Your task to perform on an android device: create a new album in the google photos Image 0: 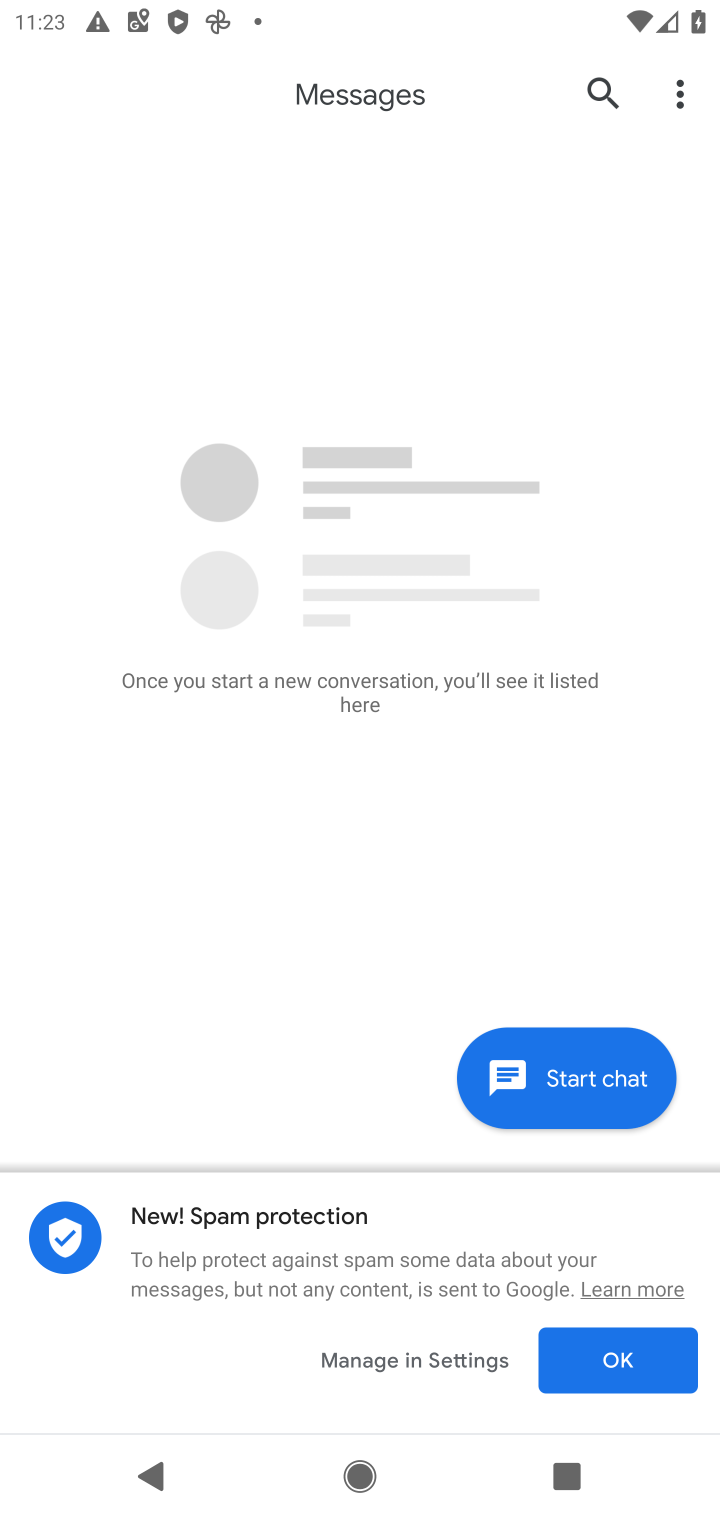
Step 0: press home button
Your task to perform on an android device: create a new album in the google photos Image 1: 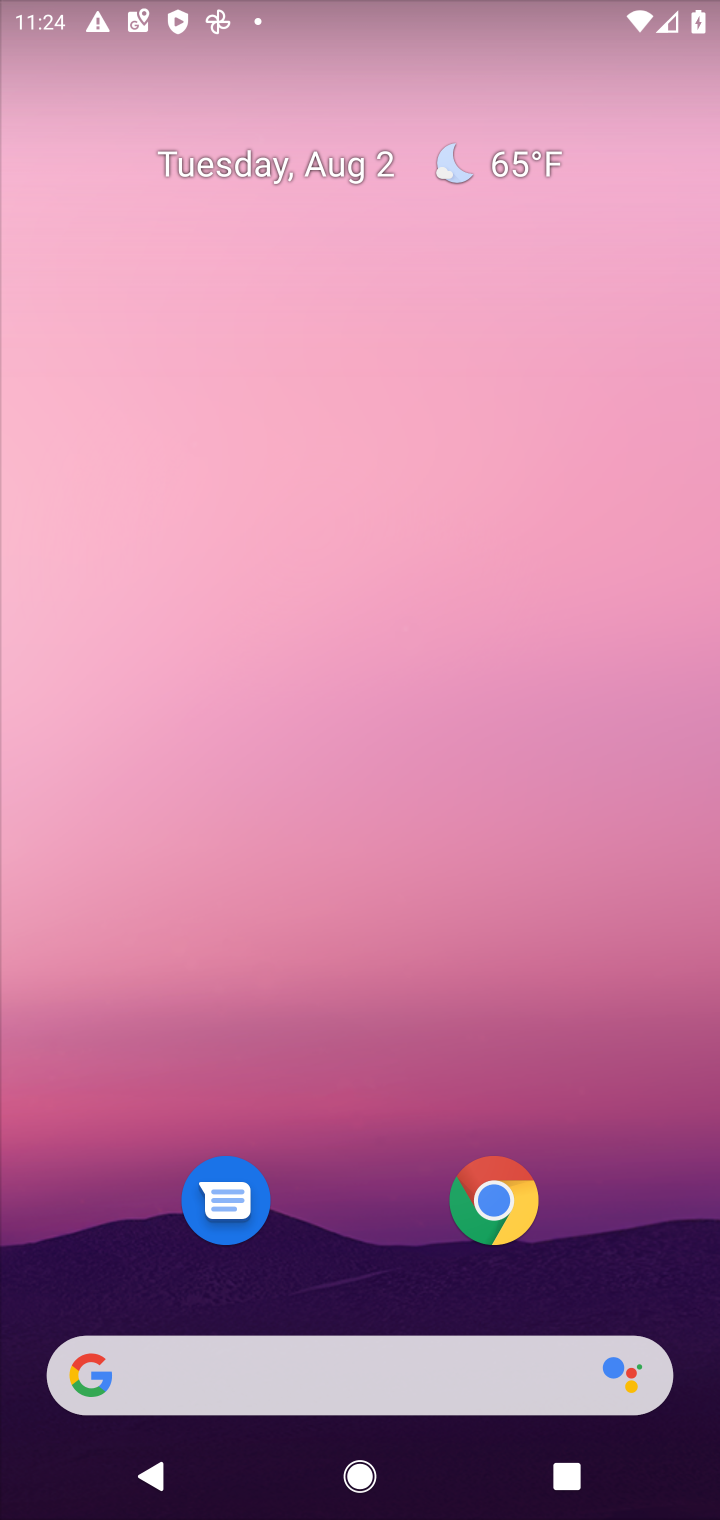
Step 1: drag from (669, 1281) to (624, 234)
Your task to perform on an android device: create a new album in the google photos Image 2: 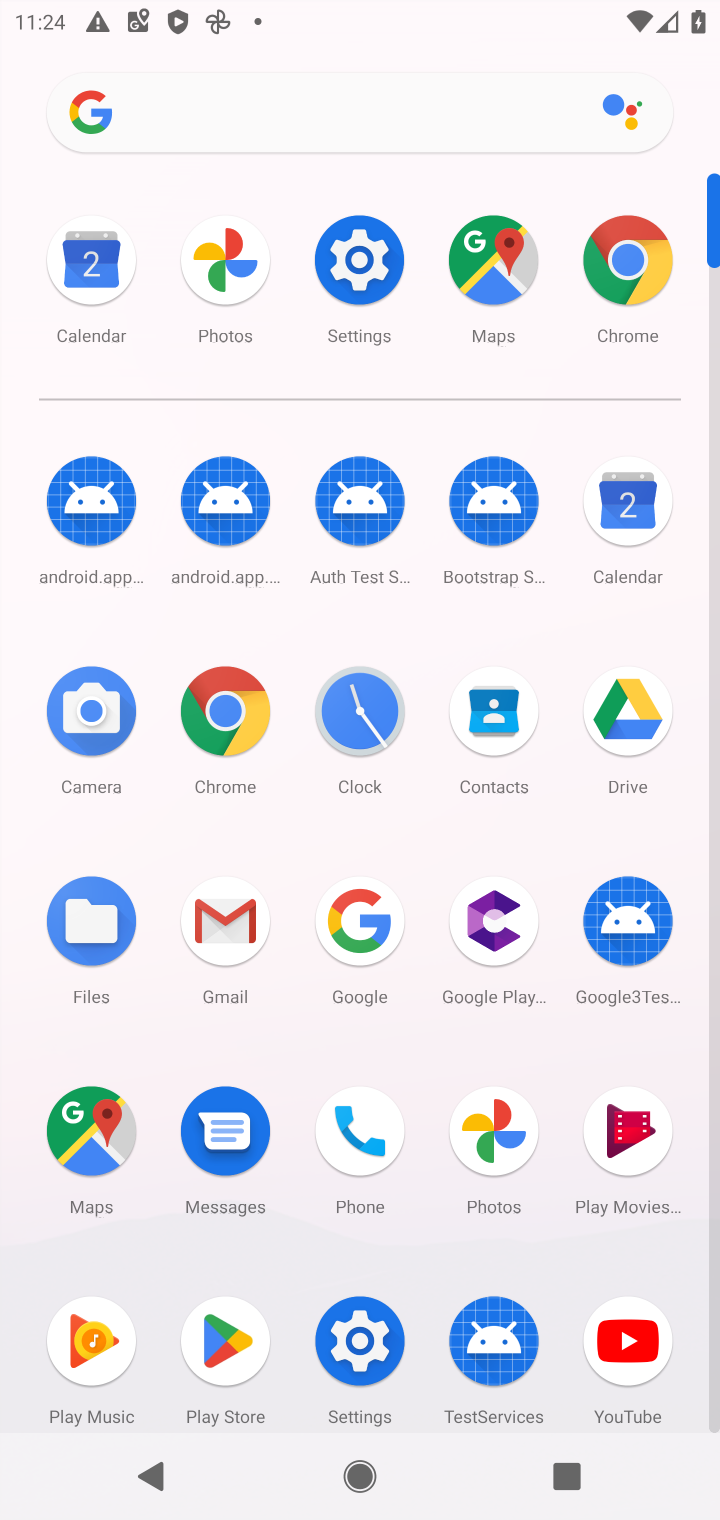
Step 2: click (503, 1138)
Your task to perform on an android device: create a new album in the google photos Image 3: 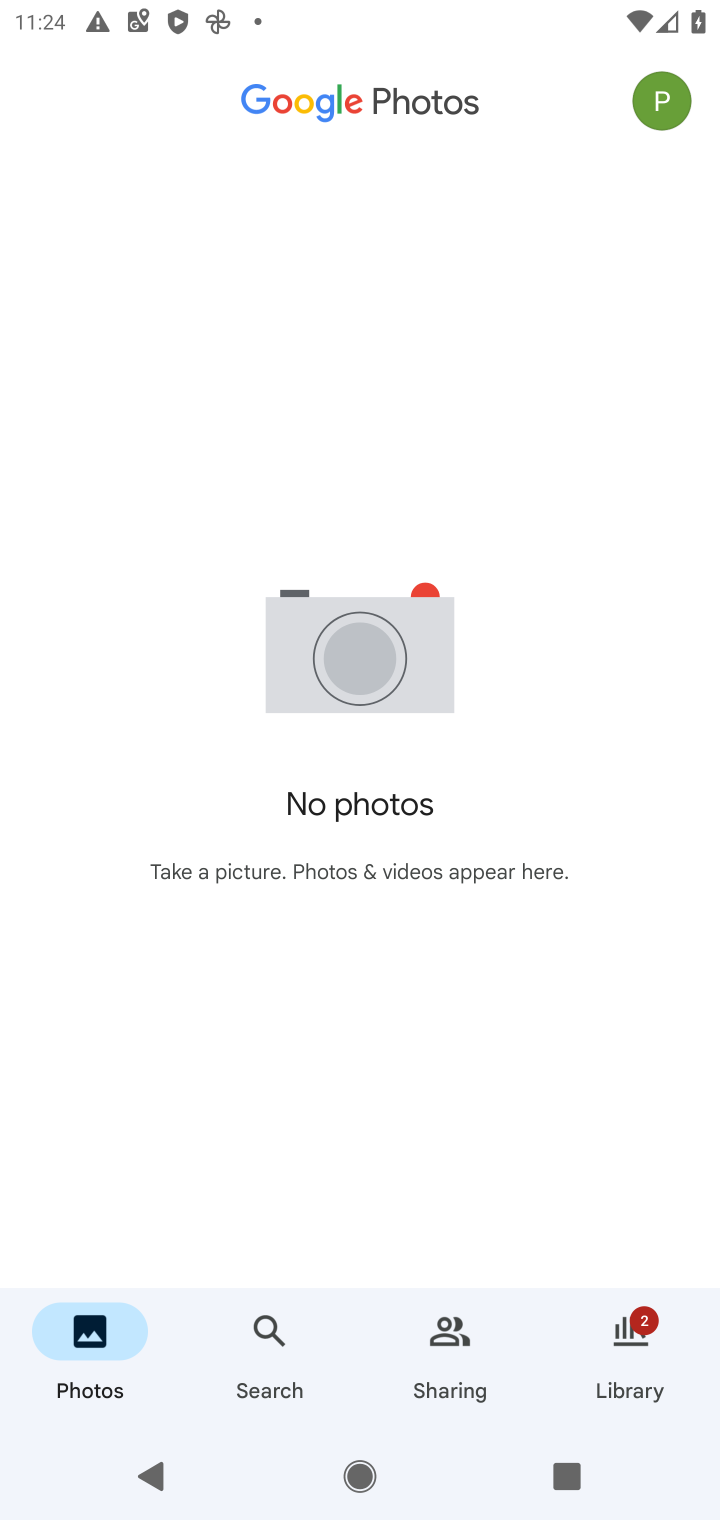
Step 3: click (628, 1342)
Your task to perform on an android device: create a new album in the google photos Image 4: 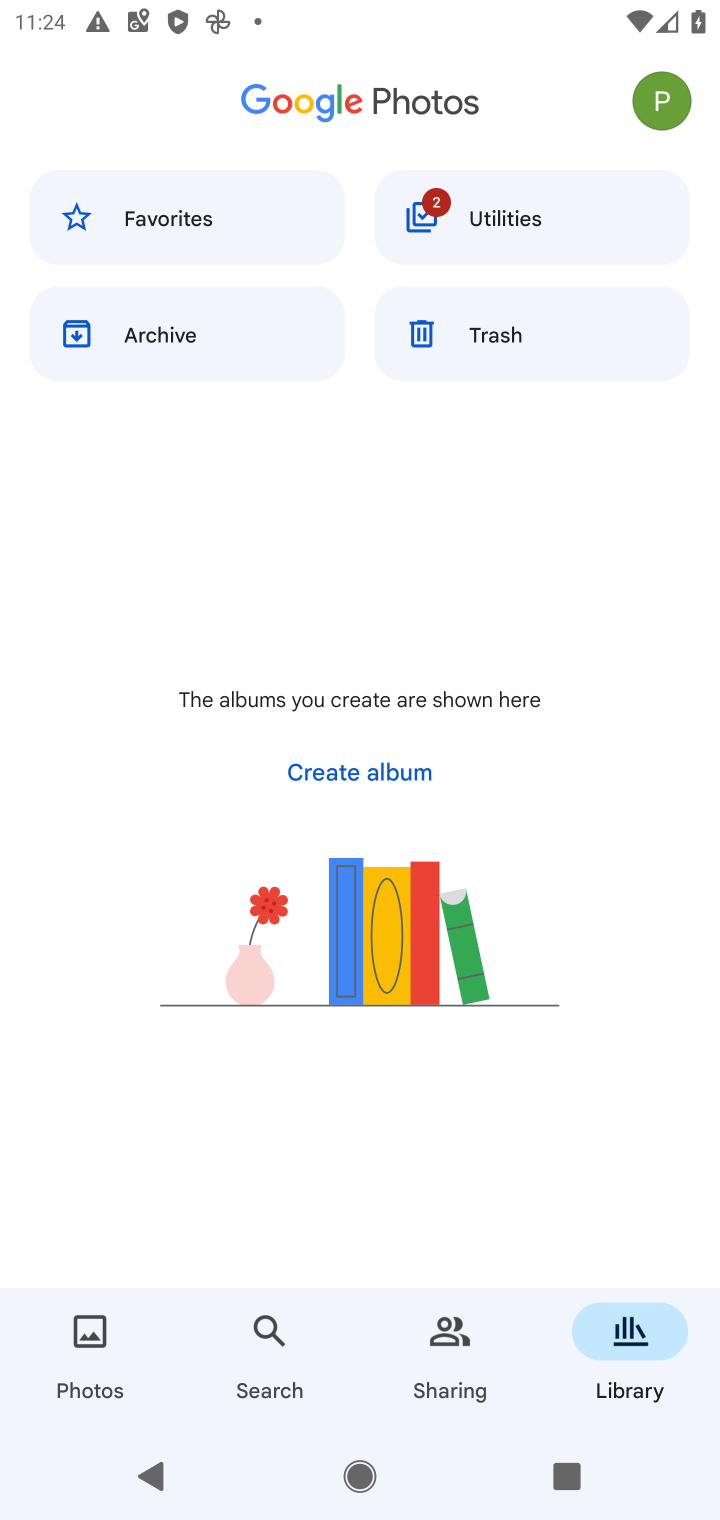
Step 4: click (345, 770)
Your task to perform on an android device: create a new album in the google photos Image 5: 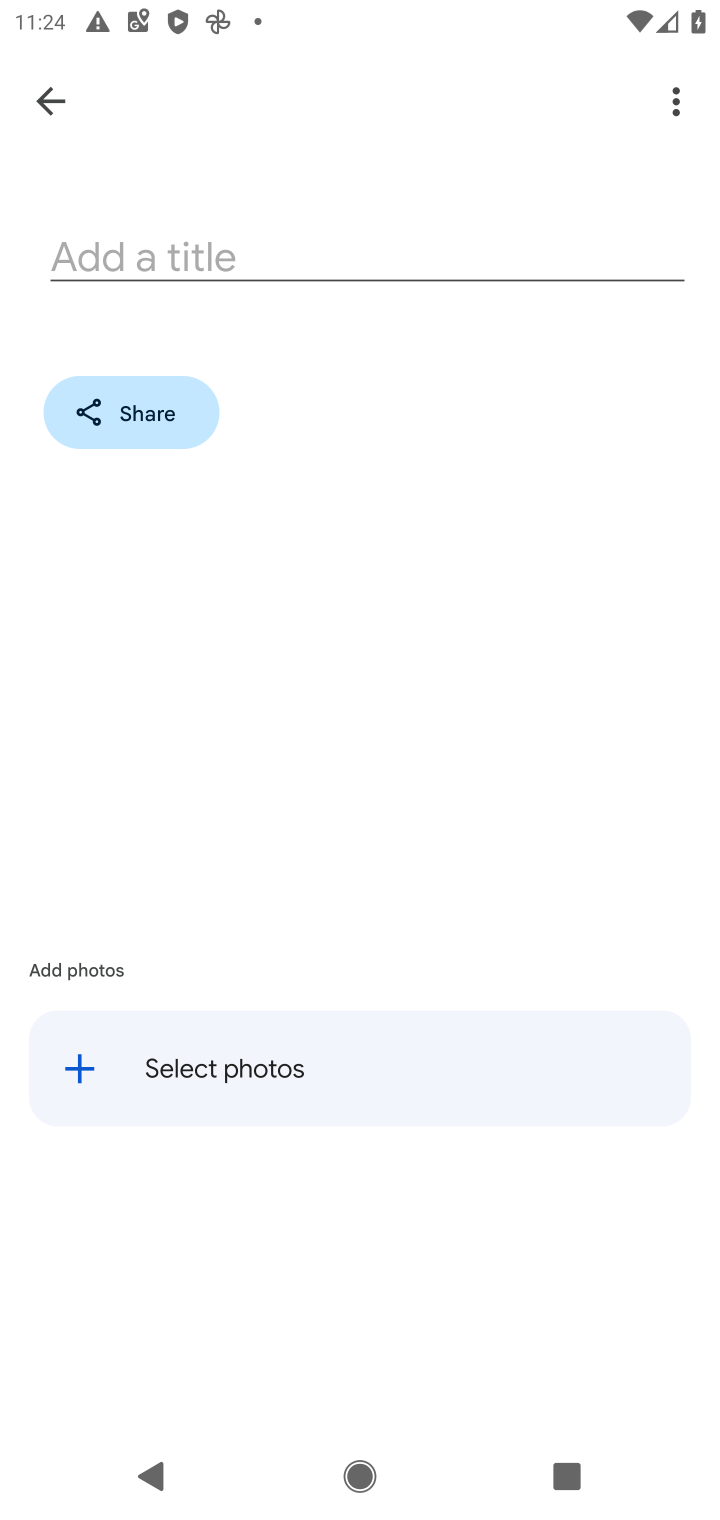
Step 5: click (173, 250)
Your task to perform on an android device: create a new album in the google photos Image 6: 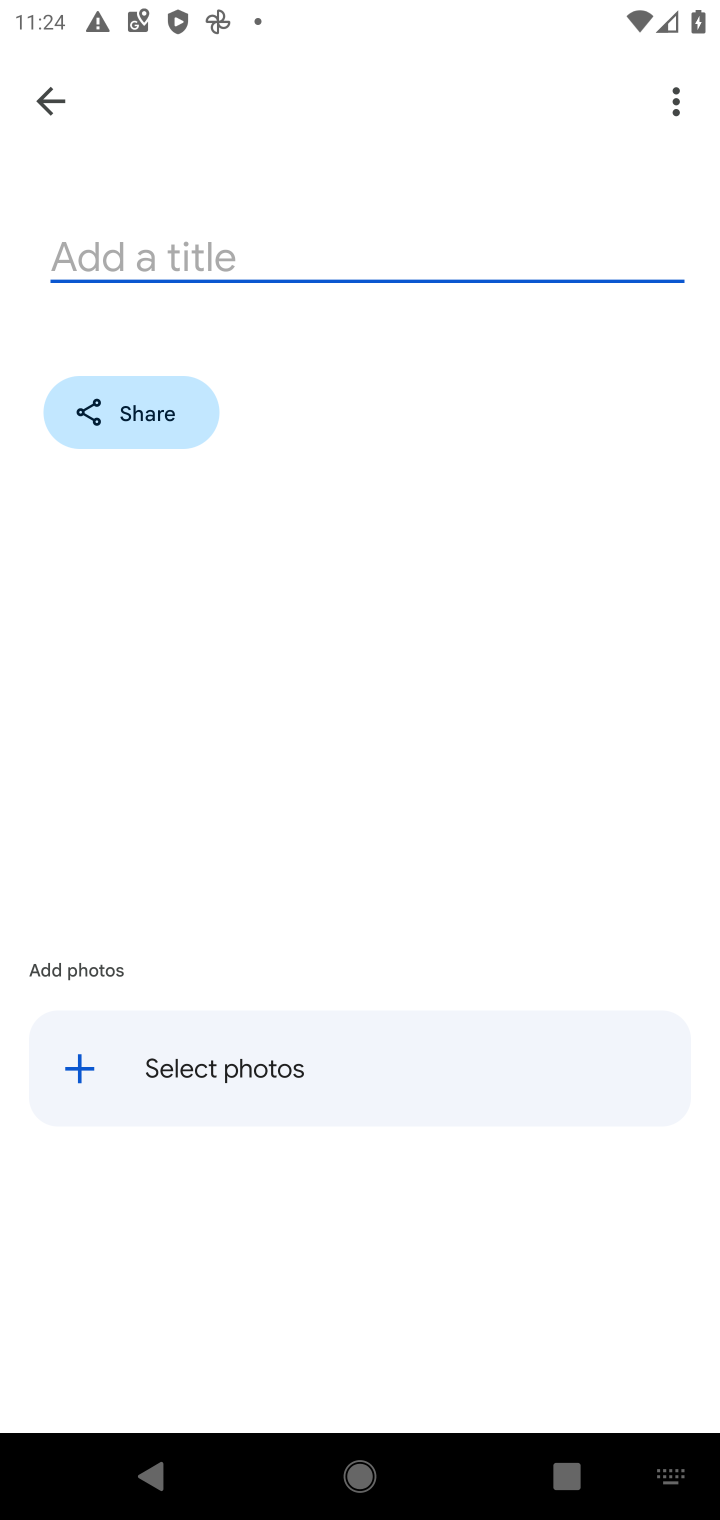
Step 6: type "hjgjgjyjm"
Your task to perform on an android device: create a new album in the google photos Image 7: 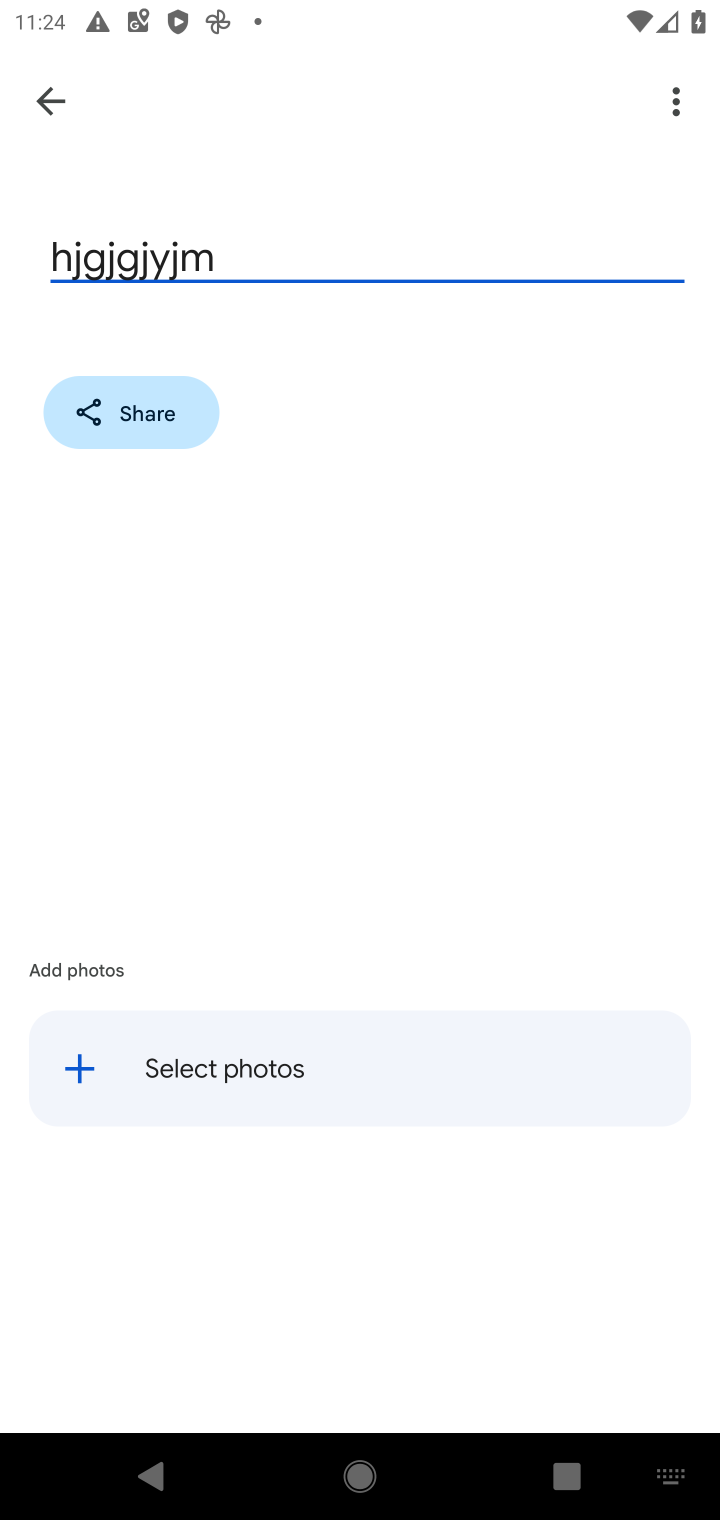
Step 7: click (77, 1060)
Your task to perform on an android device: create a new album in the google photos Image 8: 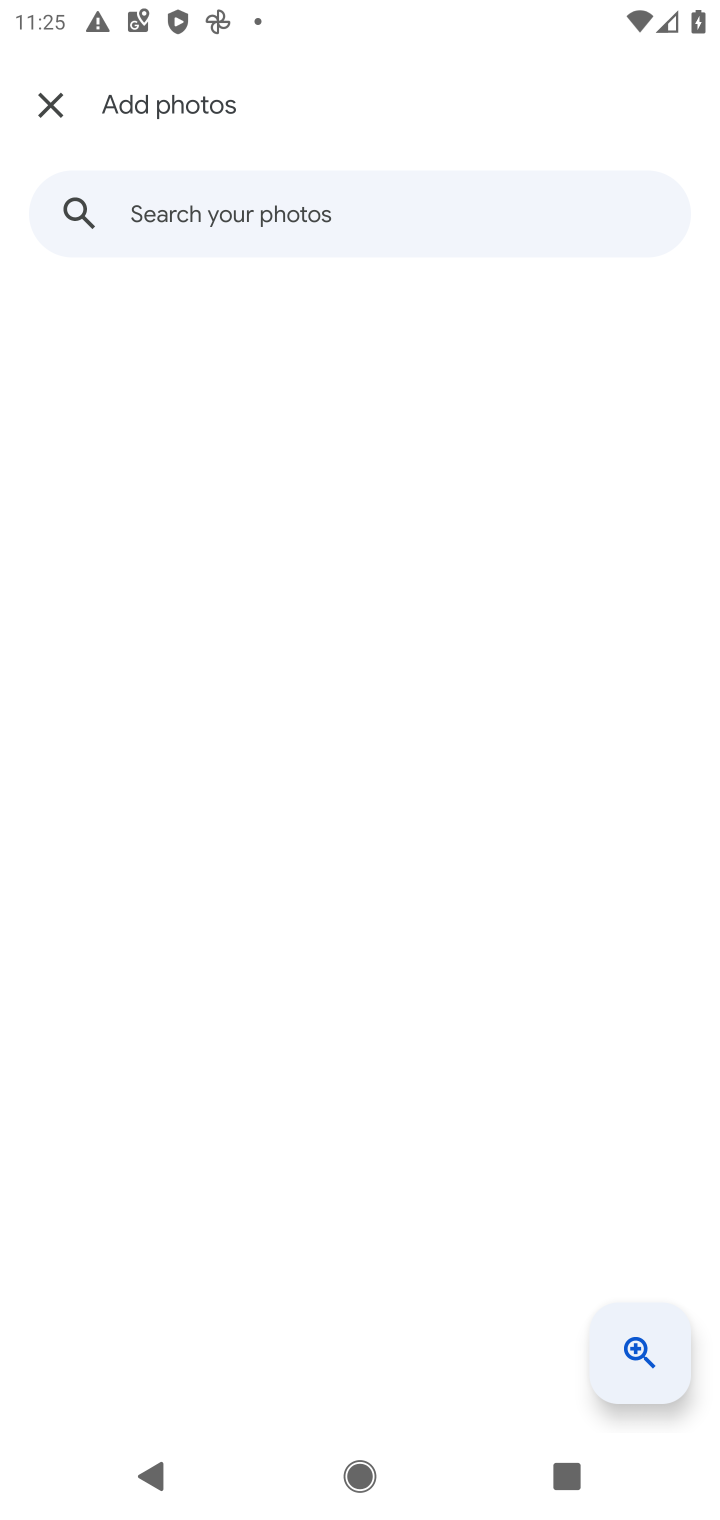
Step 8: task complete